Your task to perform on an android device: toggle pop-ups in chrome Image 0: 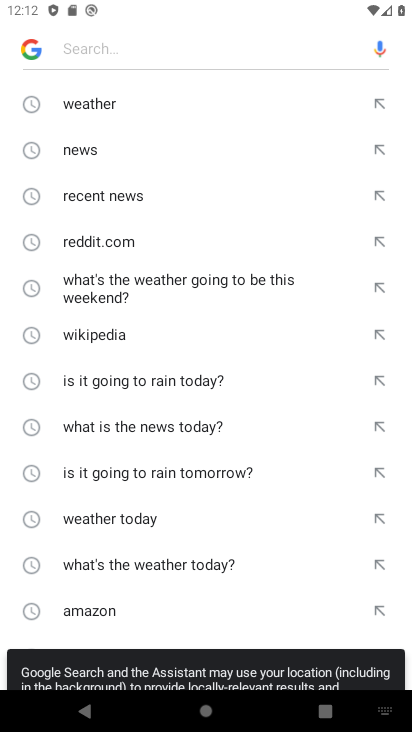
Step 0: press home button
Your task to perform on an android device: toggle pop-ups in chrome Image 1: 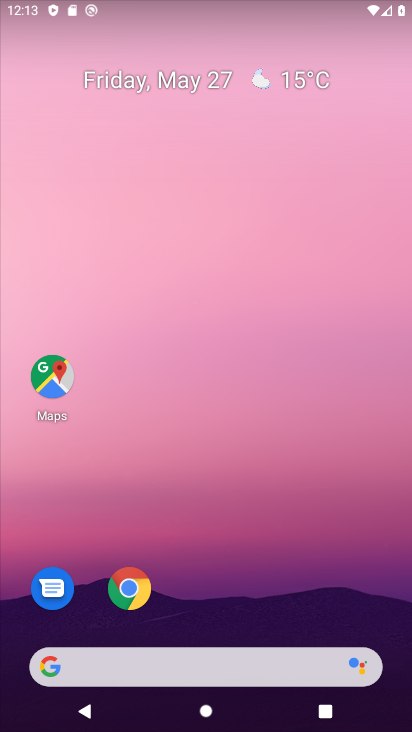
Step 1: drag from (355, 608) to (310, 107)
Your task to perform on an android device: toggle pop-ups in chrome Image 2: 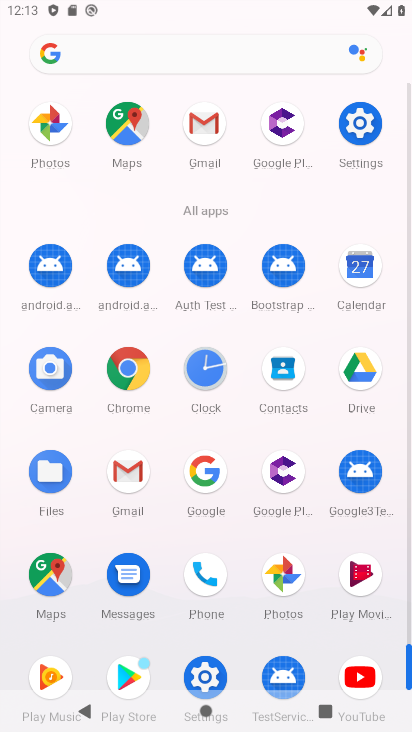
Step 2: click (125, 368)
Your task to perform on an android device: toggle pop-ups in chrome Image 3: 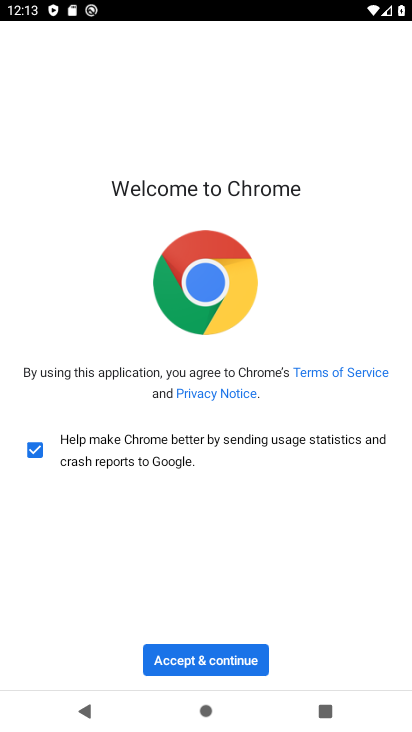
Step 3: click (206, 661)
Your task to perform on an android device: toggle pop-ups in chrome Image 4: 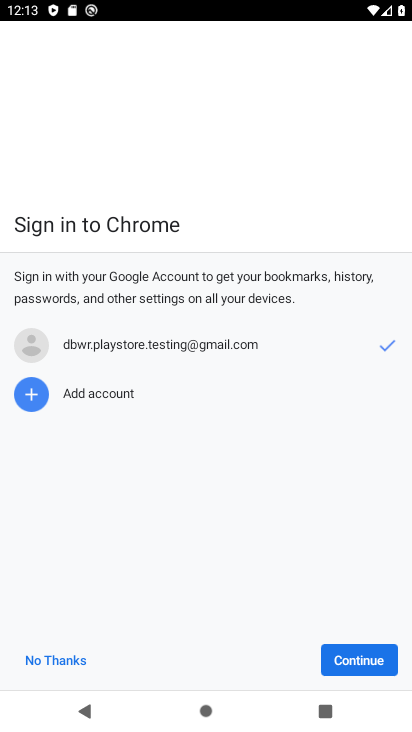
Step 4: click (356, 654)
Your task to perform on an android device: toggle pop-ups in chrome Image 5: 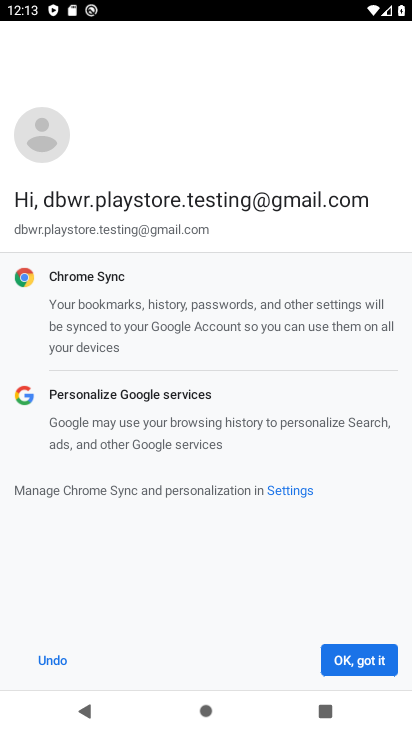
Step 5: click (356, 654)
Your task to perform on an android device: toggle pop-ups in chrome Image 6: 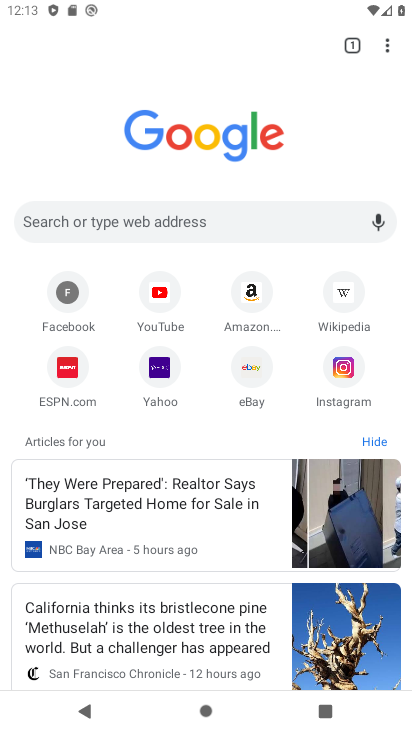
Step 6: click (387, 49)
Your task to perform on an android device: toggle pop-ups in chrome Image 7: 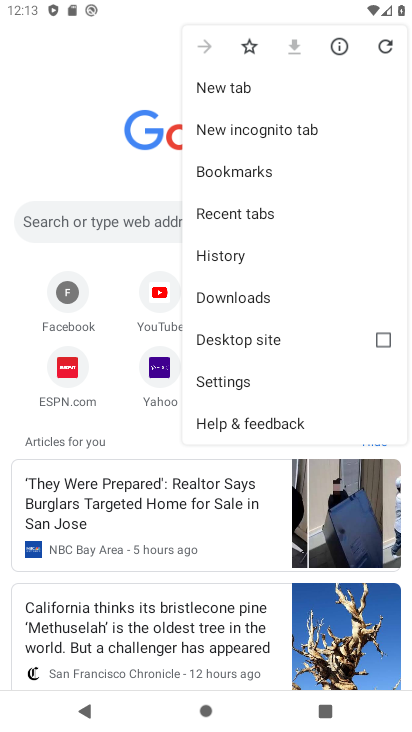
Step 7: click (241, 368)
Your task to perform on an android device: toggle pop-ups in chrome Image 8: 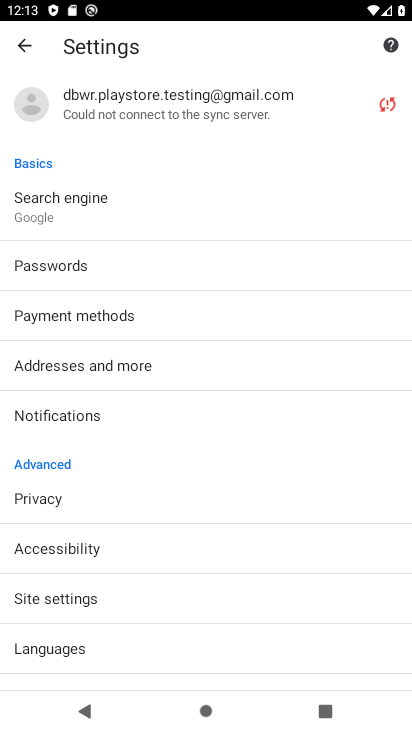
Step 8: click (77, 603)
Your task to perform on an android device: toggle pop-ups in chrome Image 9: 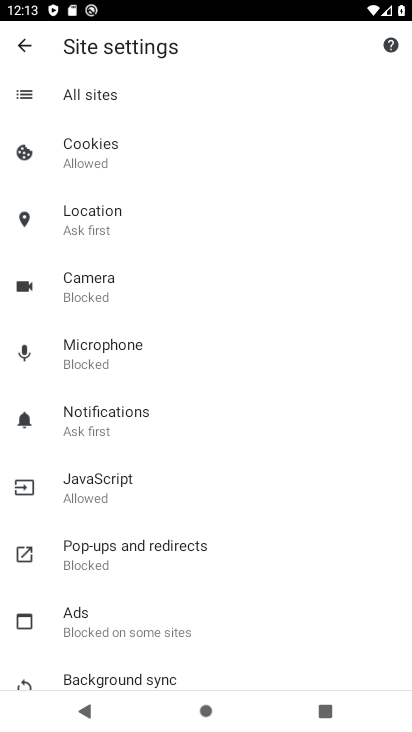
Step 9: click (90, 562)
Your task to perform on an android device: toggle pop-ups in chrome Image 10: 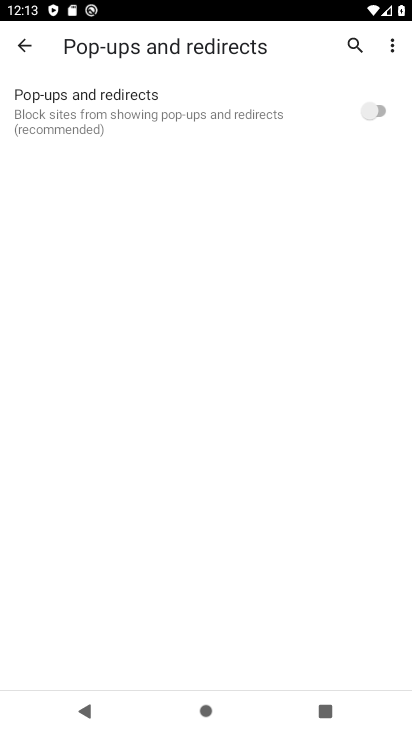
Step 10: click (383, 110)
Your task to perform on an android device: toggle pop-ups in chrome Image 11: 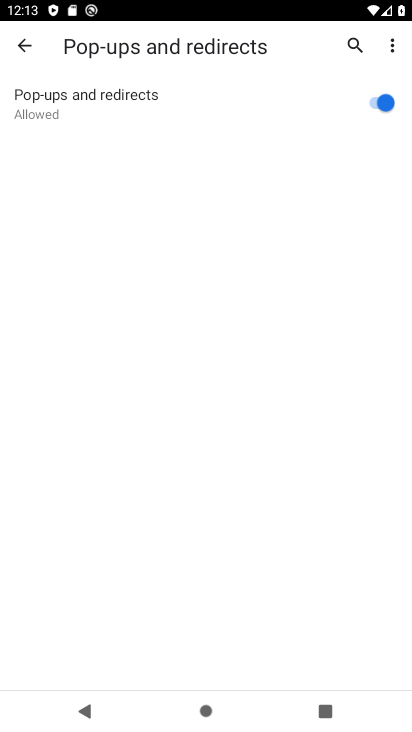
Step 11: task complete